Your task to perform on an android device: find snoozed emails in the gmail app Image 0: 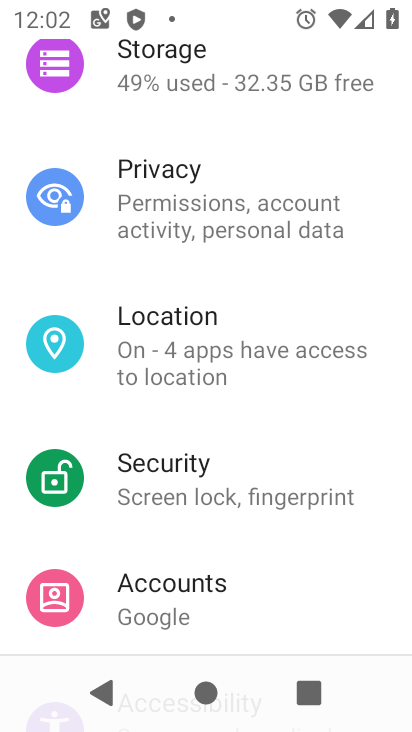
Step 0: press home button
Your task to perform on an android device: find snoozed emails in the gmail app Image 1: 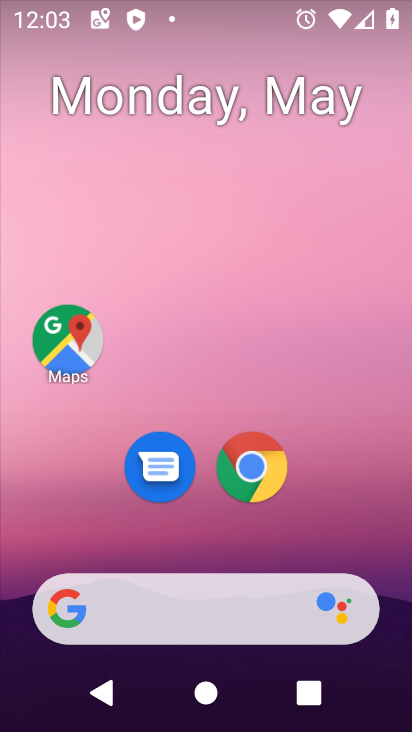
Step 1: drag from (371, 555) to (360, 31)
Your task to perform on an android device: find snoozed emails in the gmail app Image 2: 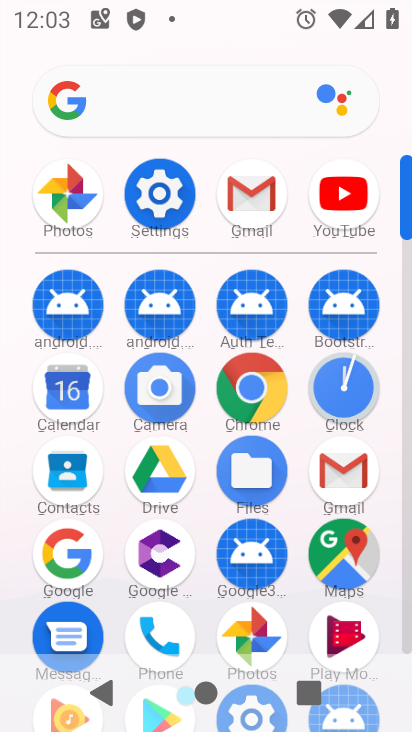
Step 2: click (257, 204)
Your task to perform on an android device: find snoozed emails in the gmail app Image 3: 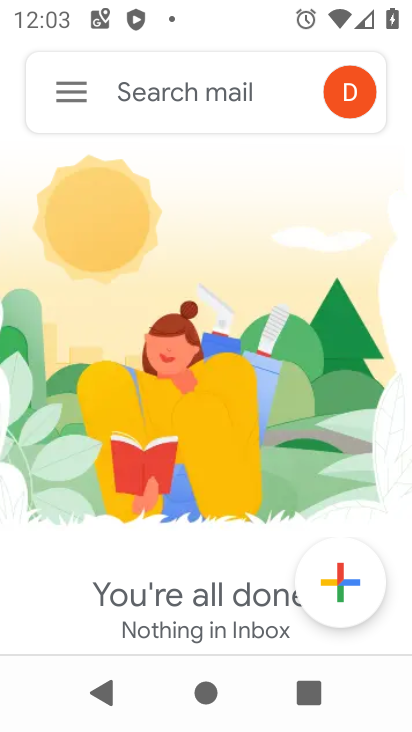
Step 3: click (69, 98)
Your task to perform on an android device: find snoozed emails in the gmail app Image 4: 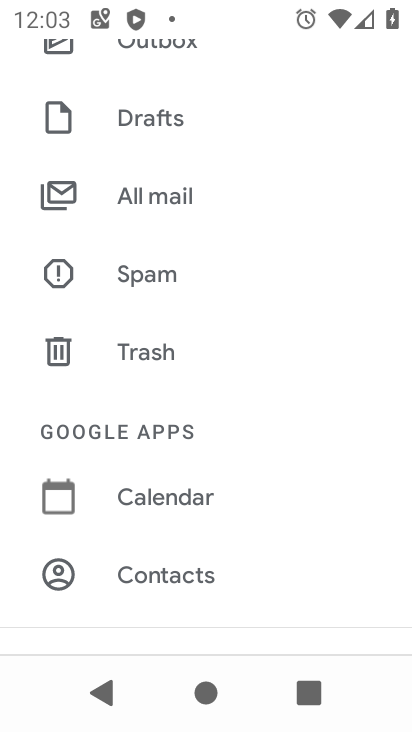
Step 4: drag from (241, 180) to (245, 533)
Your task to perform on an android device: find snoozed emails in the gmail app Image 5: 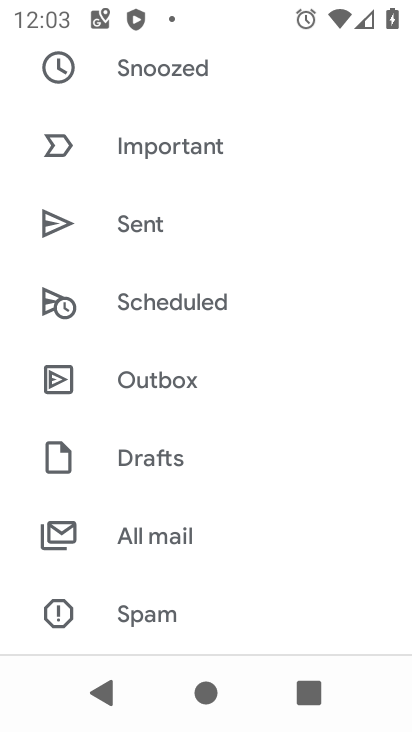
Step 5: click (156, 74)
Your task to perform on an android device: find snoozed emails in the gmail app Image 6: 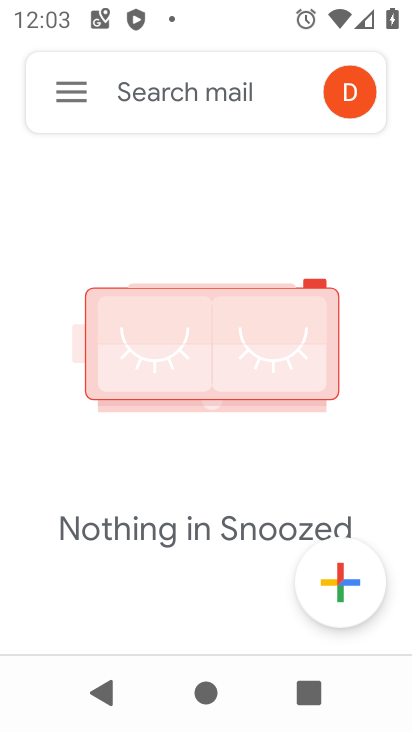
Step 6: task complete